Your task to perform on an android device: toggle location history Image 0: 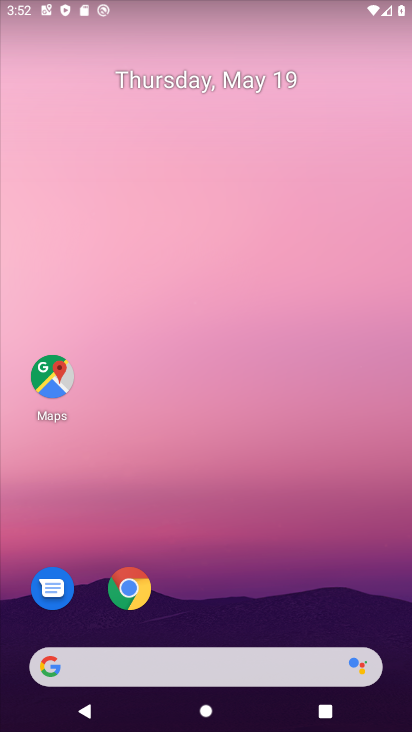
Step 0: click (27, 345)
Your task to perform on an android device: toggle location history Image 1: 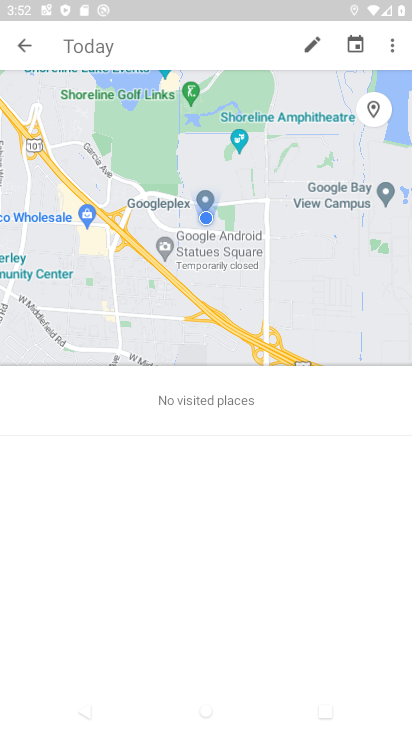
Step 1: click (397, 46)
Your task to perform on an android device: toggle location history Image 2: 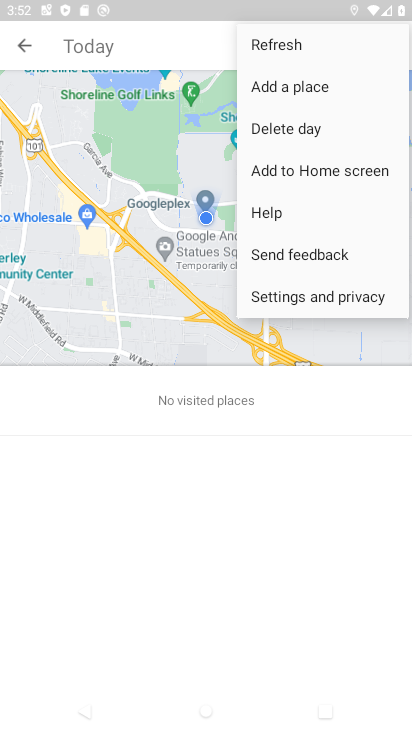
Step 2: click (280, 288)
Your task to perform on an android device: toggle location history Image 3: 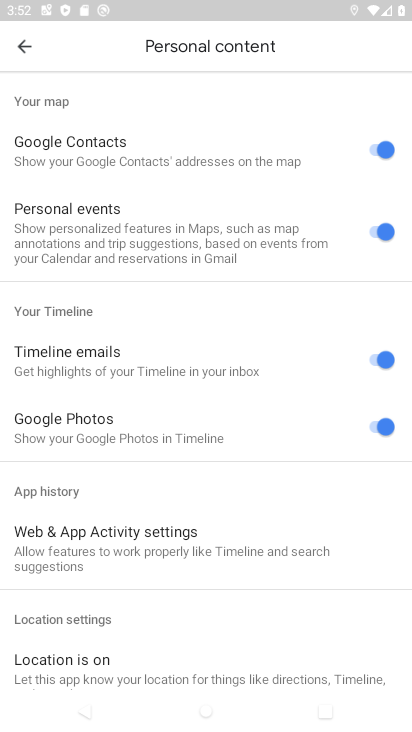
Step 3: click (91, 659)
Your task to perform on an android device: toggle location history Image 4: 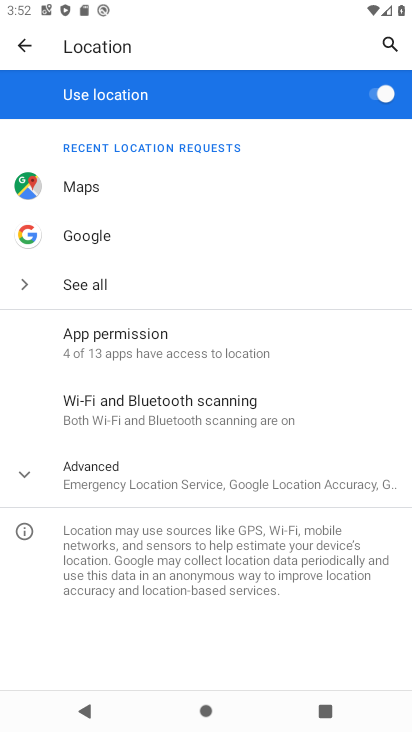
Step 4: drag from (91, 659) to (148, 339)
Your task to perform on an android device: toggle location history Image 5: 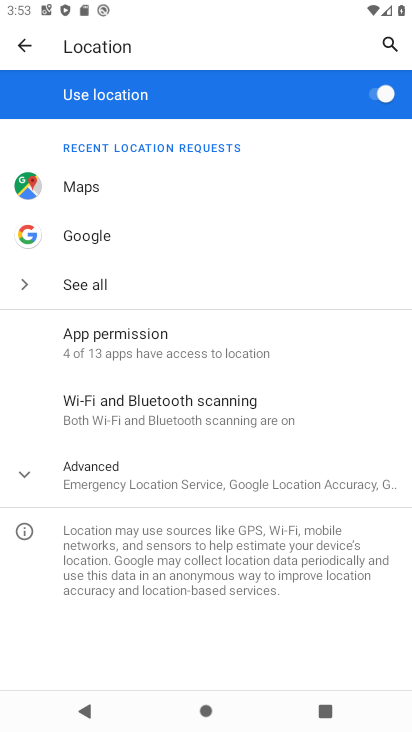
Step 5: click (108, 486)
Your task to perform on an android device: toggle location history Image 6: 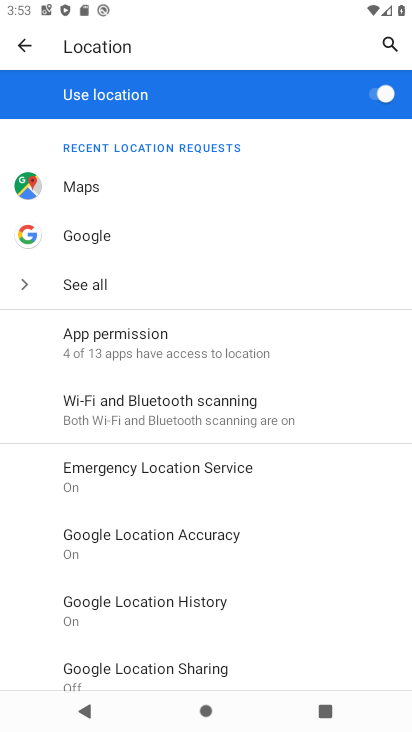
Step 6: click (171, 619)
Your task to perform on an android device: toggle location history Image 7: 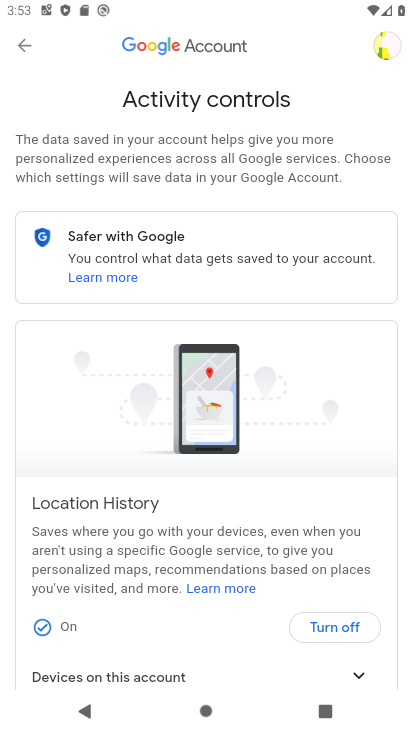
Step 7: drag from (159, 669) to (180, 371)
Your task to perform on an android device: toggle location history Image 8: 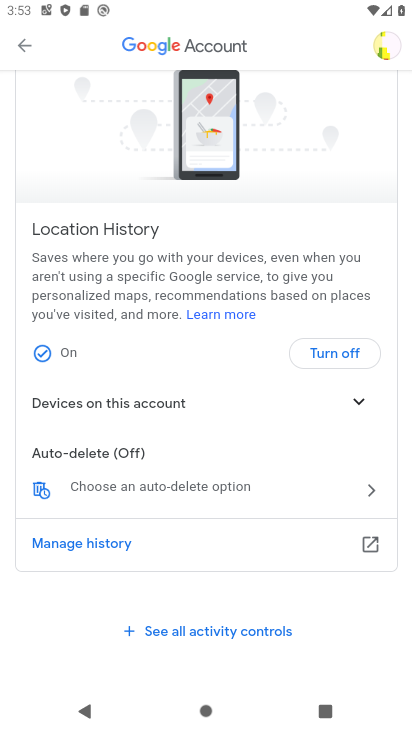
Step 8: click (305, 357)
Your task to perform on an android device: toggle location history Image 9: 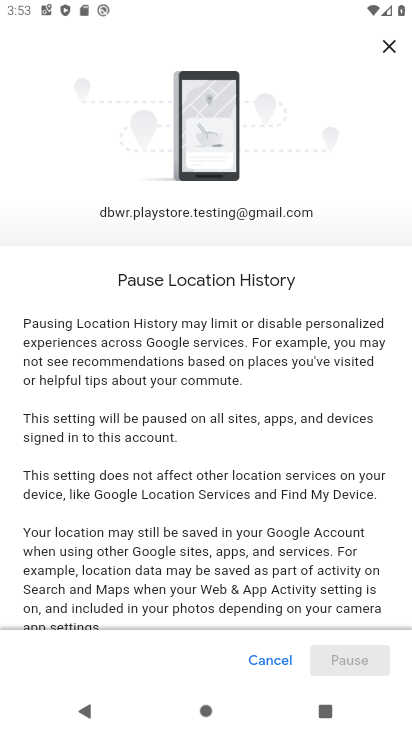
Step 9: drag from (247, 562) to (278, 233)
Your task to perform on an android device: toggle location history Image 10: 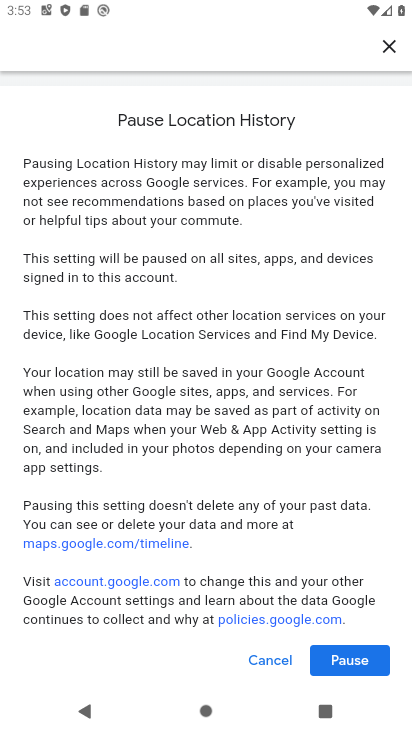
Step 10: click (333, 667)
Your task to perform on an android device: toggle location history Image 11: 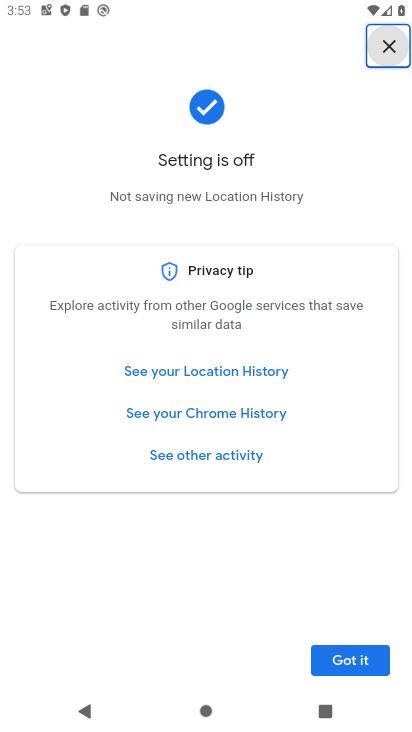
Step 11: click (333, 667)
Your task to perform on an android device: toggle location history Image 12: 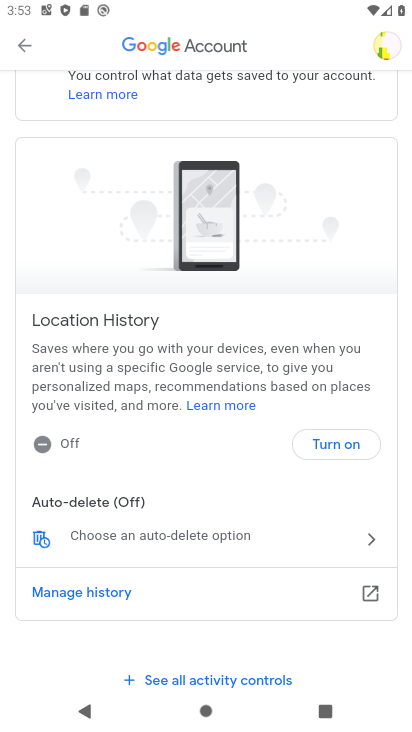
Step 12: task complete